Your task to perform on an android device: When is my next meeting? Image 0: 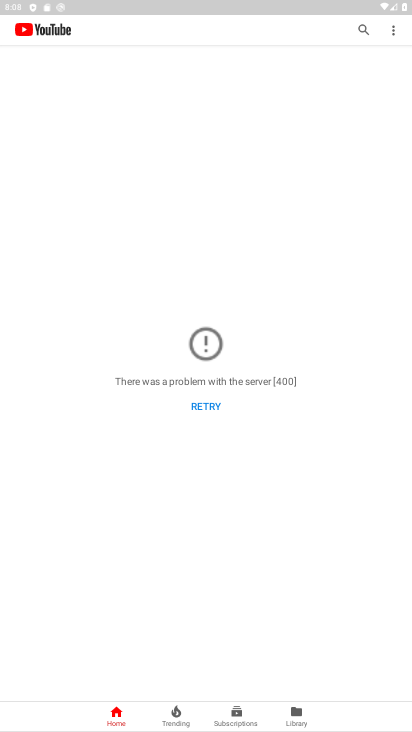
Step 0: press home button
Your task to perform on an android device: When is my next meeting? Image 1: 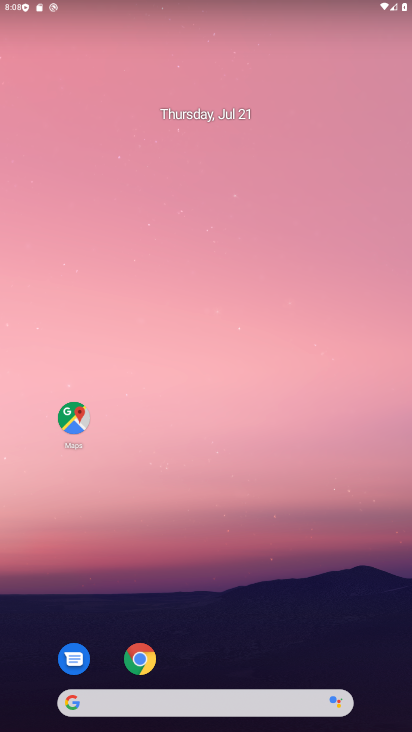
Step 1: drag from (222, 666) to (251, 48)
Your task to perform on an android device: When is my next meeting? Image 2: 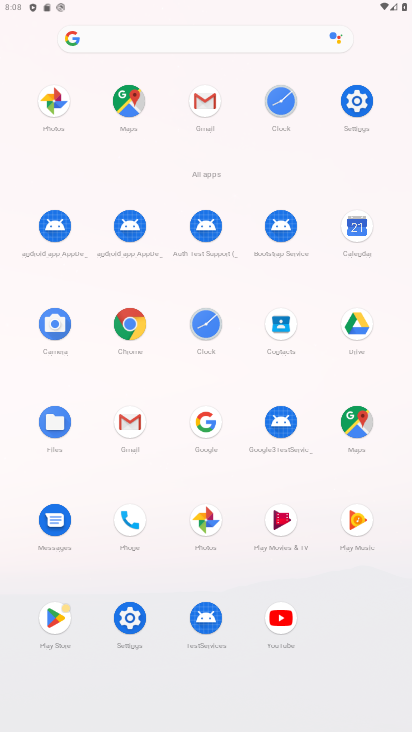
Step 2: click (352, 224)
Your task to perform on an android device: When is my next meeting? Image 3: 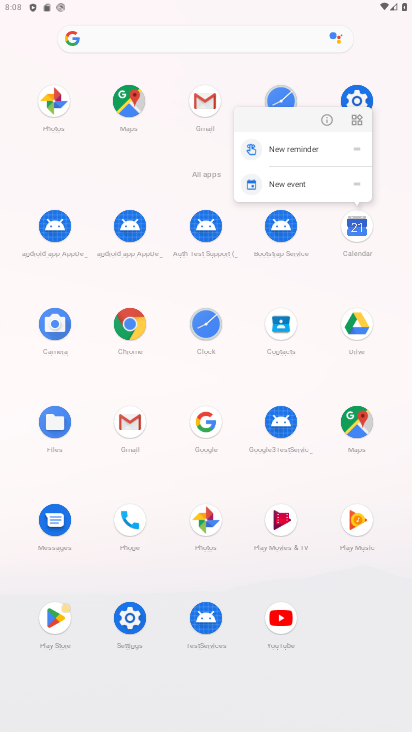
Step 3: click (355, 232)
Your task to perform on an android device: When is my next meeting? Image 4: 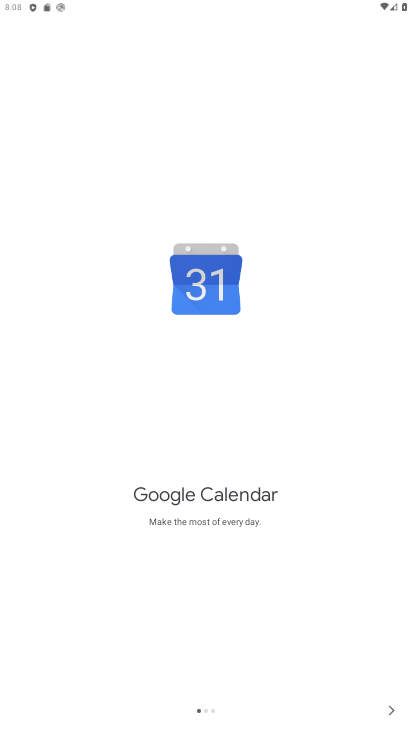
Step 4: click (387, 705)
Your task to perform on an android device: When is my next meeting? Image 5: 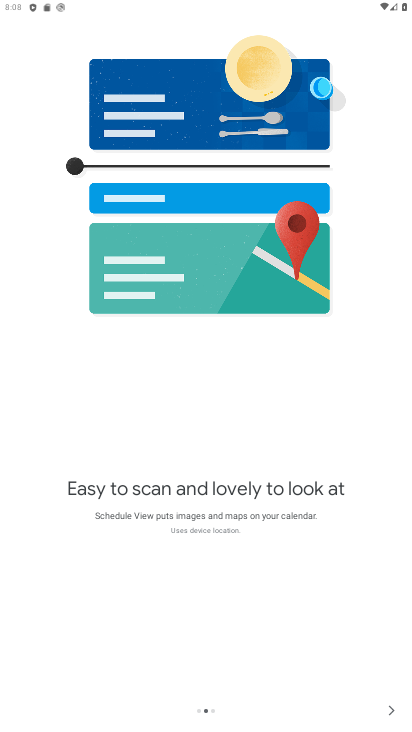
Step 5: click (390, 710)
Your task to perform on an android device: When is my next meeting? Image 6: 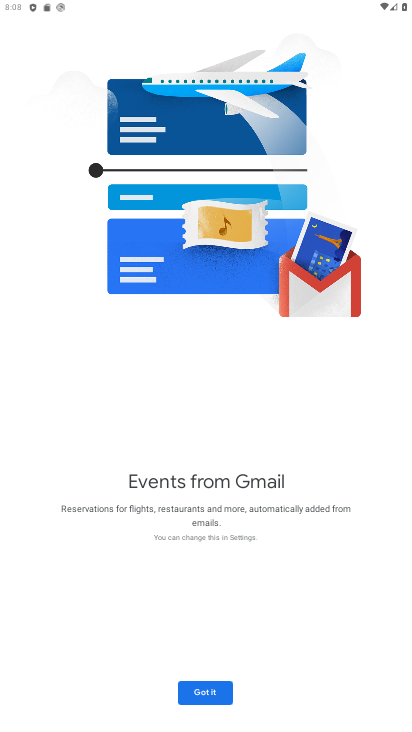
Step 6: click (209, 689)
Your task to perform on an android device: When is my next meeting? Image 7: 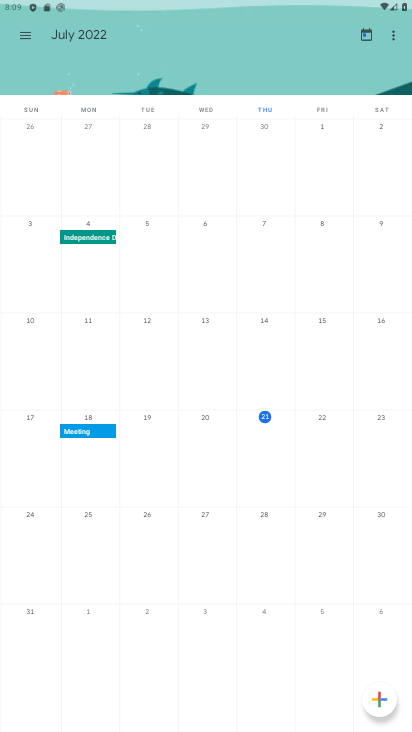
Step 7: click (23, 36)
Your task to perform on an android device: When is my next meeting? Image 8: 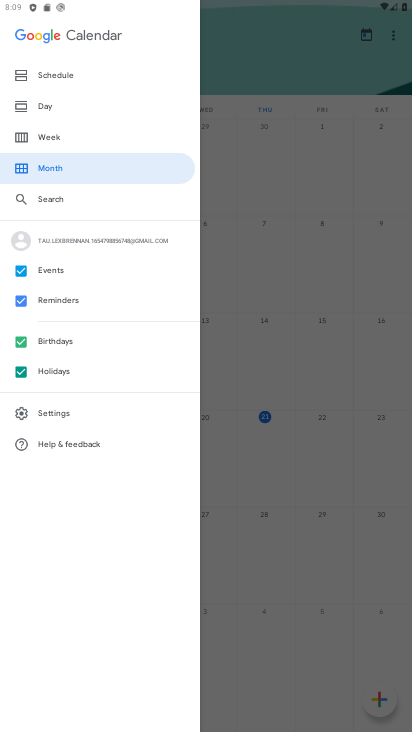
Step 8: click (46, 132)
Your task to perform on an android device: When is my next meeting? Image 9: 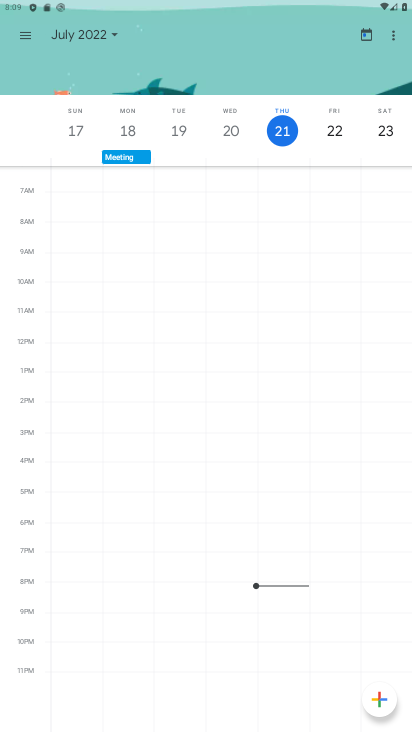
Step 9: drag from (381, 125) to (26, 117)
Your task to perform on an android device: When is my next meeting? Image 10: 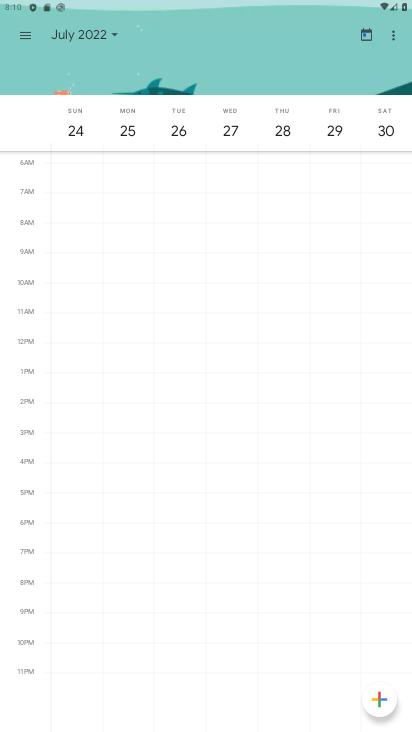
Step 10: click (76, 124)
Your task to perform on an android device: When is my next meeting? Image 11: 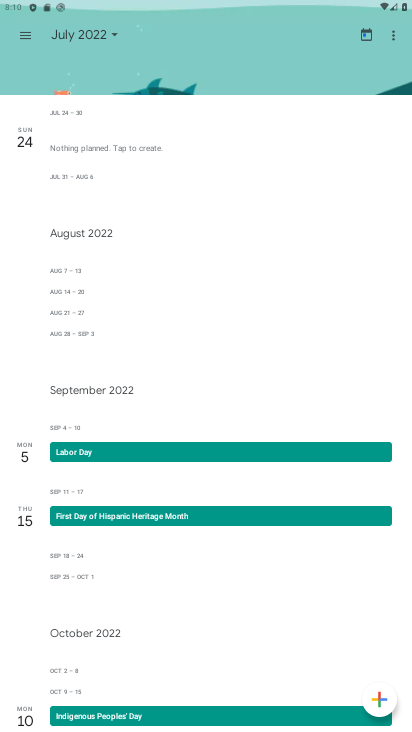
Step 11: task complete